Your task to perform on an android device: Open calendar and show me the second week of next month Image 0: 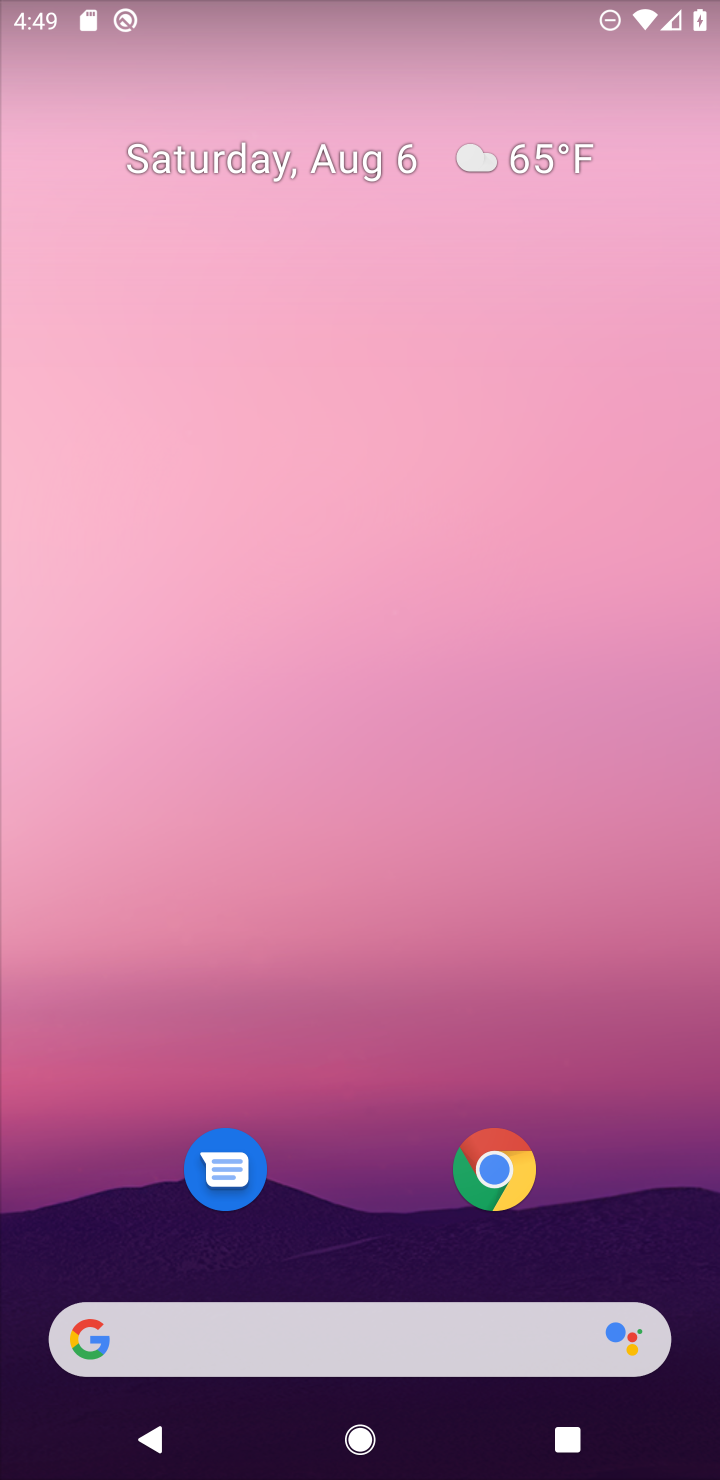
Step 0: drag from (355, 695) to (346, 4)
Your task to perform on an android device: Open calendar and show me the second week of next month Image 1: 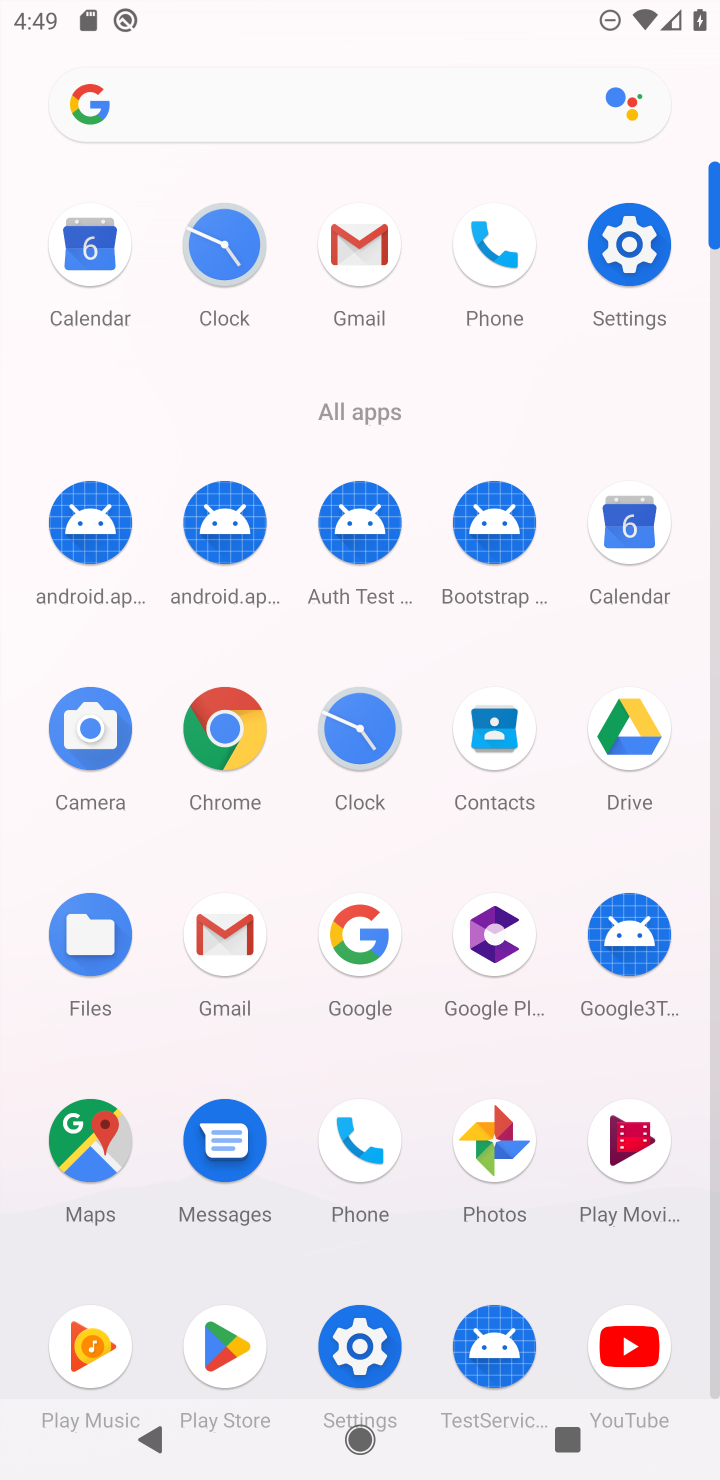
Step 1: click (623, 535)
Your task to perform on an android device: Open calendar and show me the second week of next month Image 2: 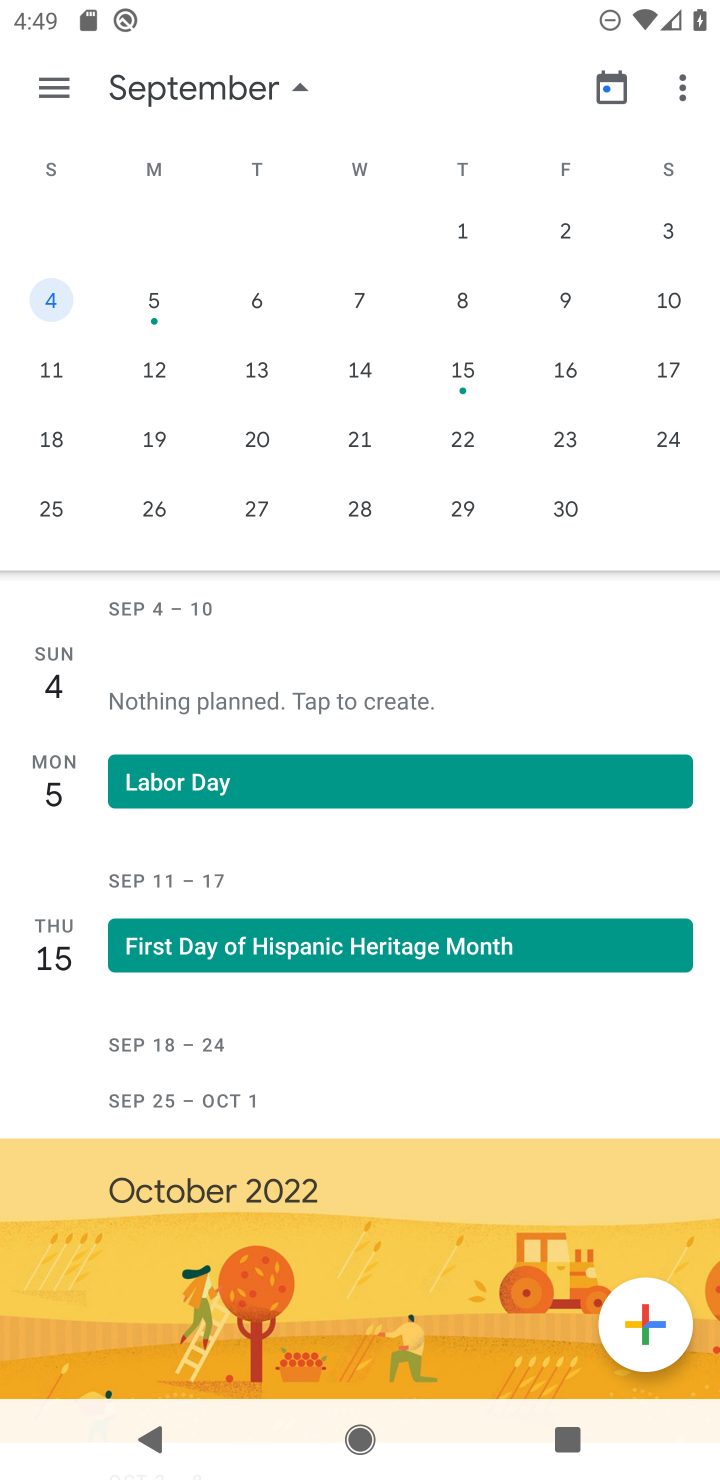
Step 2: task complete